Your task to perform on an android device: toggle show notifications on the lock screen Image 0: 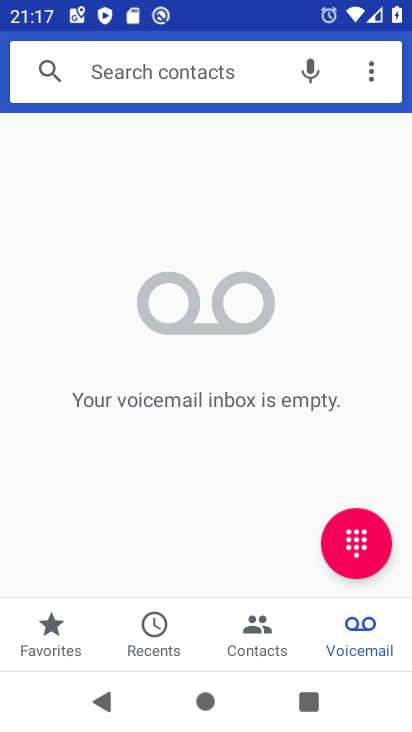
Step 0: press home button
Your task to perform on an android device: toggle show notifications on the lock screen Image 1: 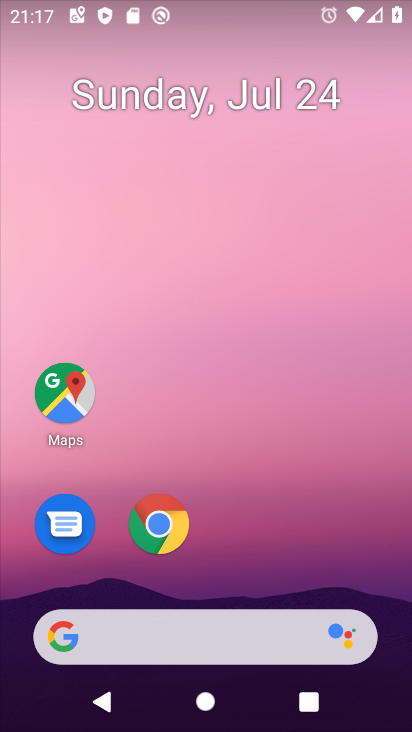
Step 1: drag from (273, 495) to (317, 7)
Your task to perform on an android device: toggle show notifications on the lock screen Image 2: 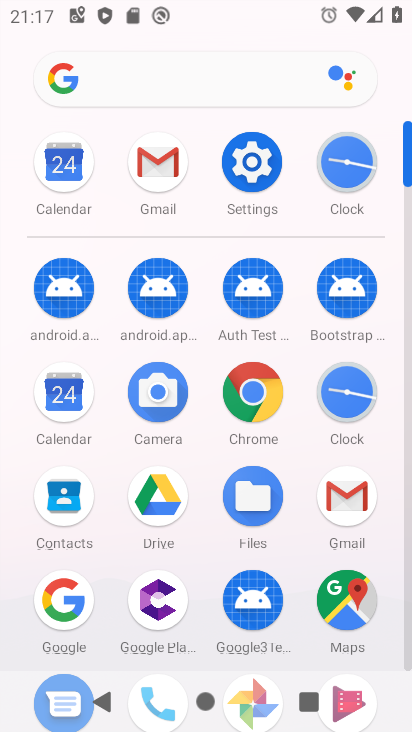
Step 2: click (250, 176)
Your task to perform on an android device: toggle show notifications on the lock screen Image 3: 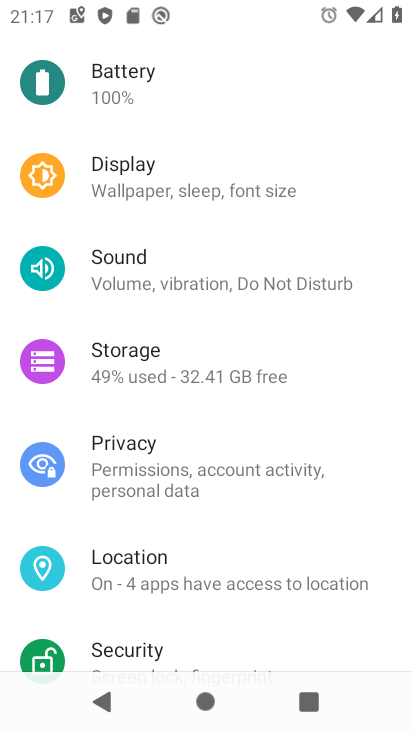
Step 3: drag from (197, 150) to (194, 548)
Your task to perform on an android device: toggle show notifications on the lock screen Image 4: 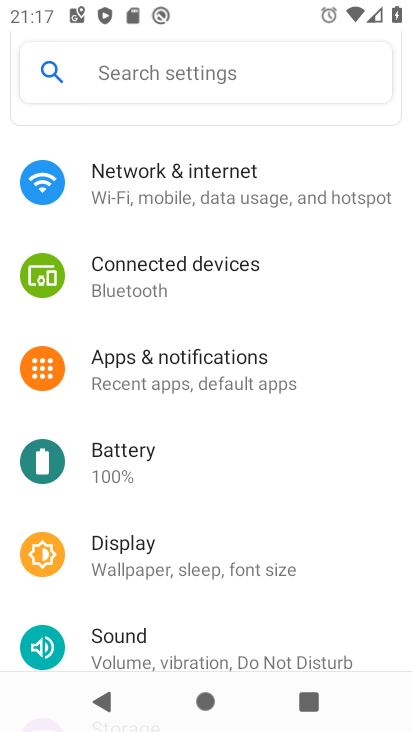
Step 4: click (192, 376)
Your task to perform on an android device: toggle show notifications on the lock screen Image 5: 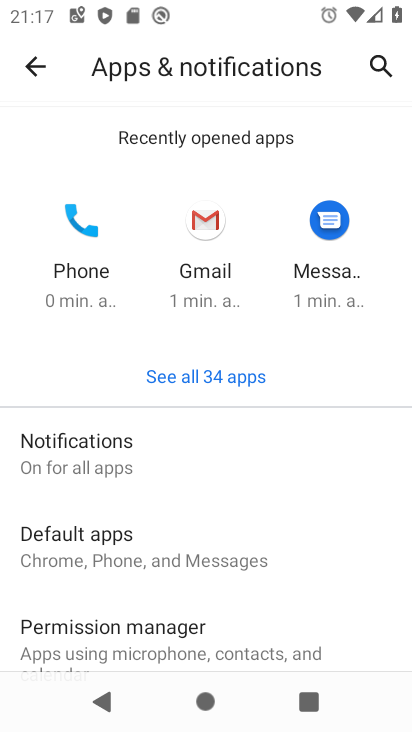
Step 5: click (105, 435)
Your task to perform on an android device: toggle show notifications on the lock screen Image 6: 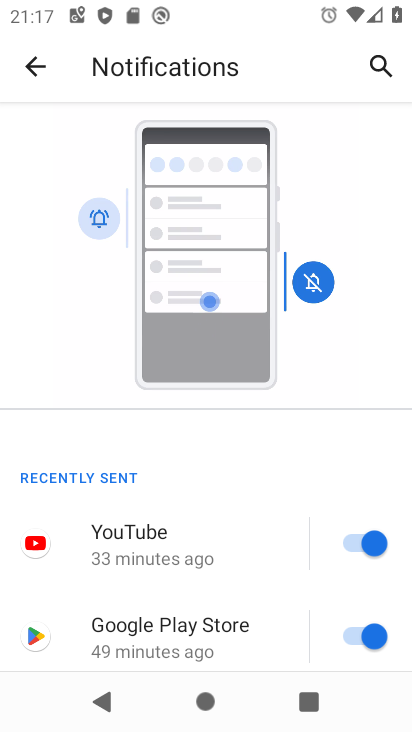
Step 6: drag from (225, 583) to (253, 26)
Your task to perform on an android device: toggle show notifications on the lock screen Image 7: 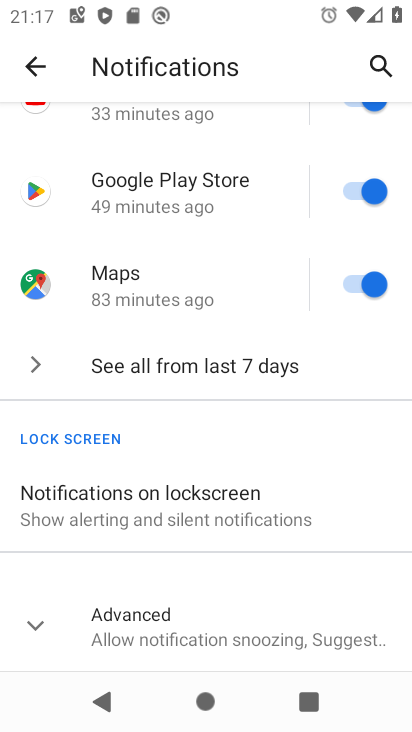
Step 7: click (38, 625)
Your task to perform on an android device: toggle show notifications on the lock screen Image 8: 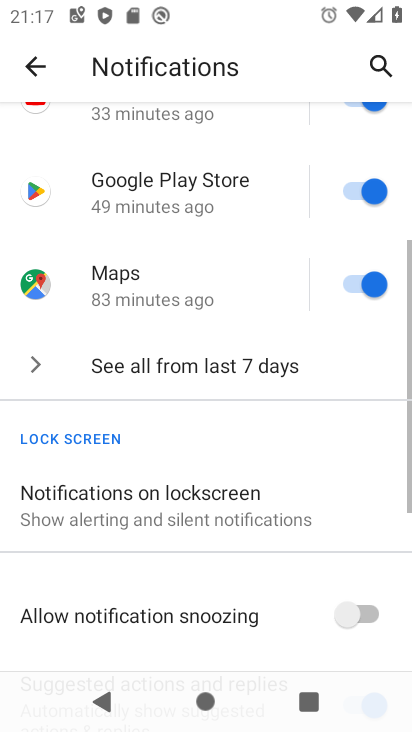
Step 8: drag from (206, 572) to (226, 212)
Your task to perform on an android device: toggle show notifications on the lock screen Image 9: 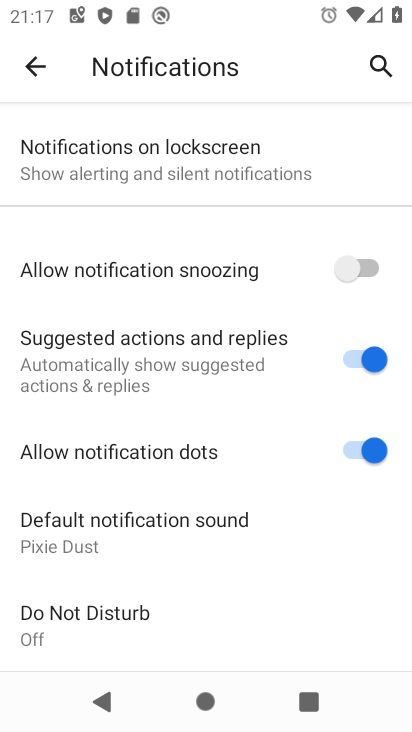
Step 9: drag from (189, 236) to (164, 623)
Your task to perform on an android device: toggle show notifications on the lock screen Image 10: 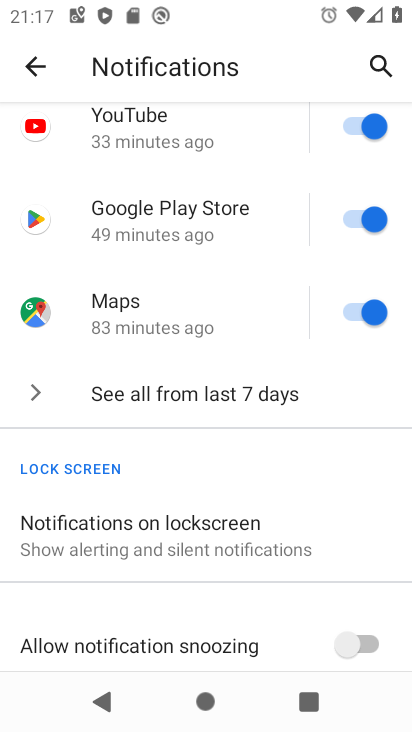
Step 10: click (171, 539)
Your task to perform on an android device: toggle show notifications on the lock screen Image 11: 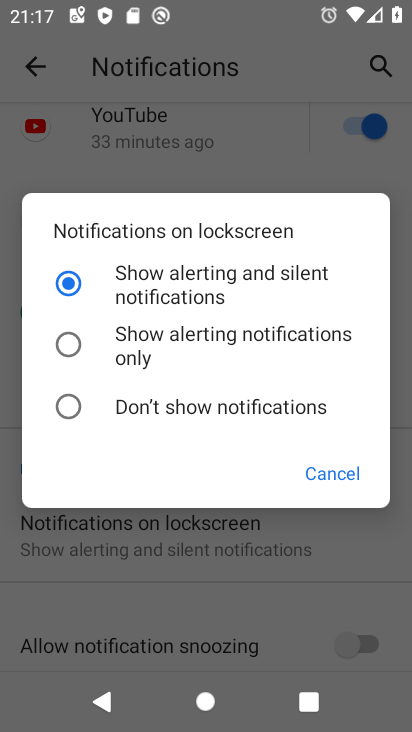
Step 11: click (68, 403)
Your task to perform on an android device: toggle show notifications on the lock screen Image 12: 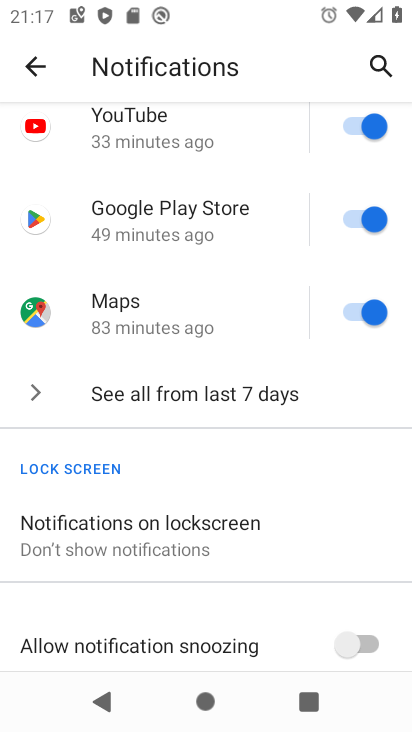
Step 12: task complete